Your task to perform on an android device: toggle notification dots Image 0: 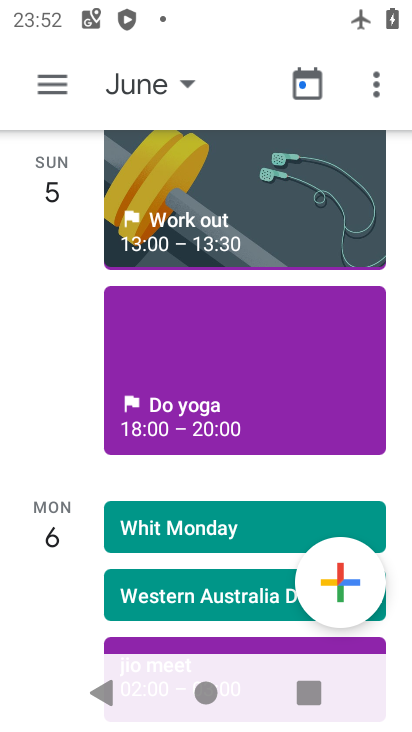
Step 0: press home button
Your task to perform on an android device: toggle notification dots Image 1: 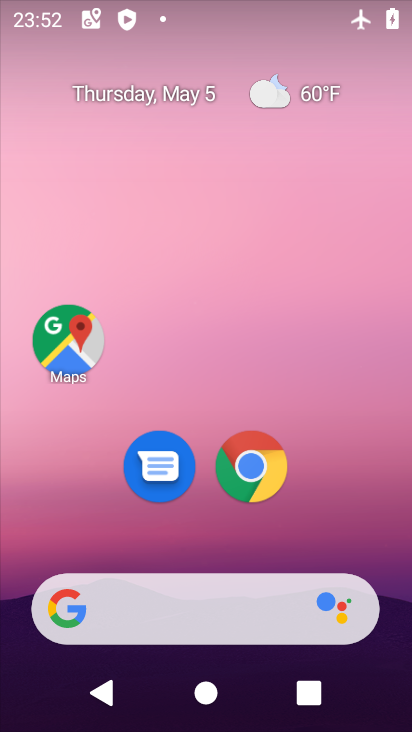
Step 1: drag from (157, 561) to (261, 197)
Your task to perform on an android device: toggle notification dots Image 2: 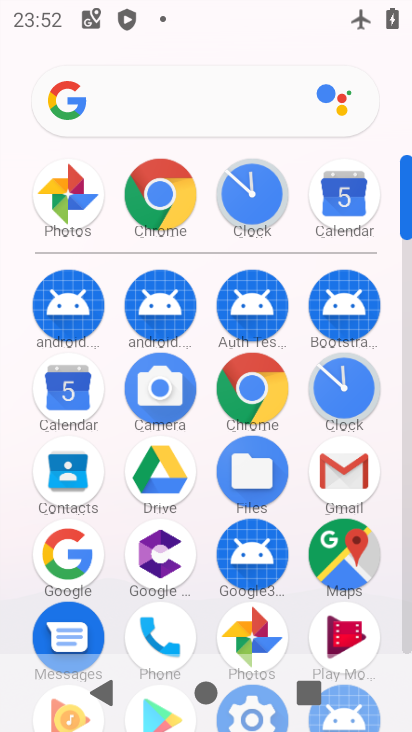
Step 2: drag from (100, 606) to (172, 287)
Your task to perform on an android device: toggle notification dots Image 3: 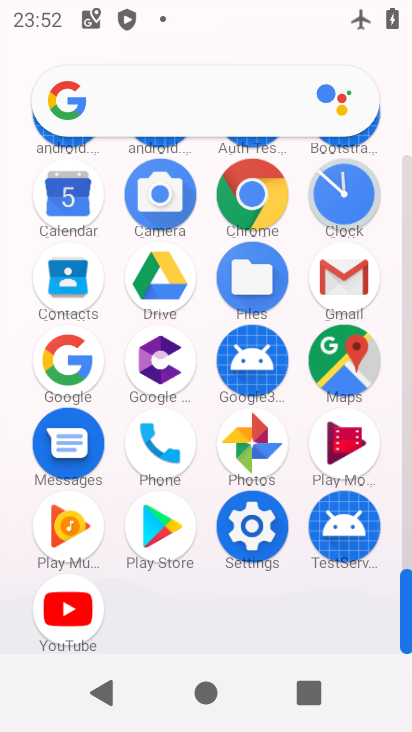
Step 3: click (247, 534)
Your task to perform on an android device: toggle notification dots Image 4: 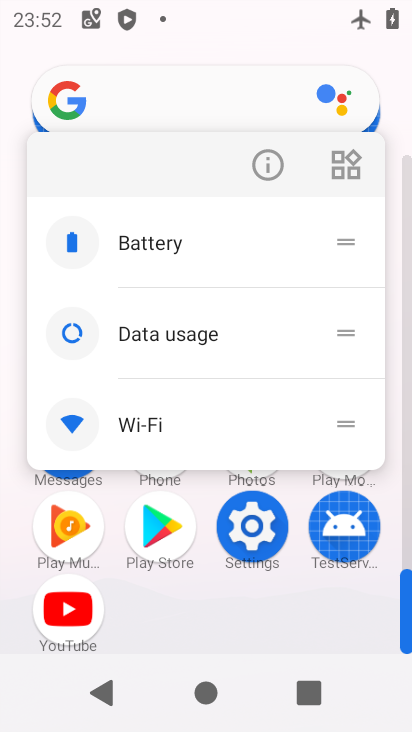
Step 4: click (247, 523)
Your task to perform on an android device: toggle notification dots Image 5: 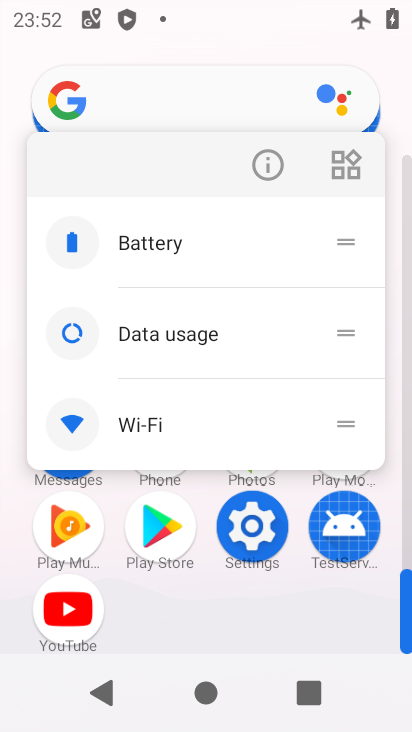
Step 5: click (253, 537)
Your task to perform on an android device: toggle notification dots Image 6: 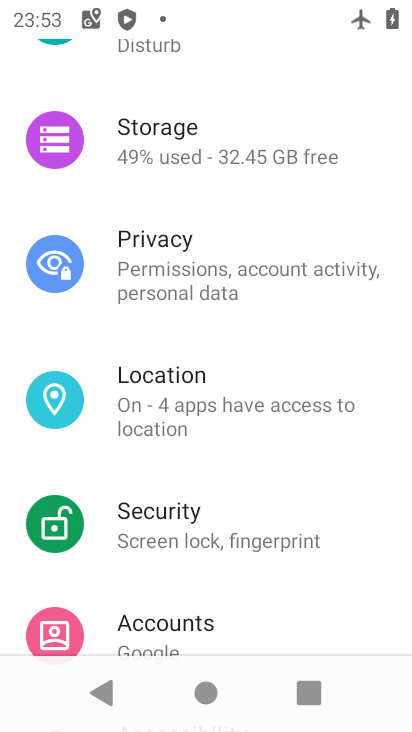
Step 6: drag from (236, 156) to (264, 651)
Your task to perform on an android device: toggle notification dots Image 7: 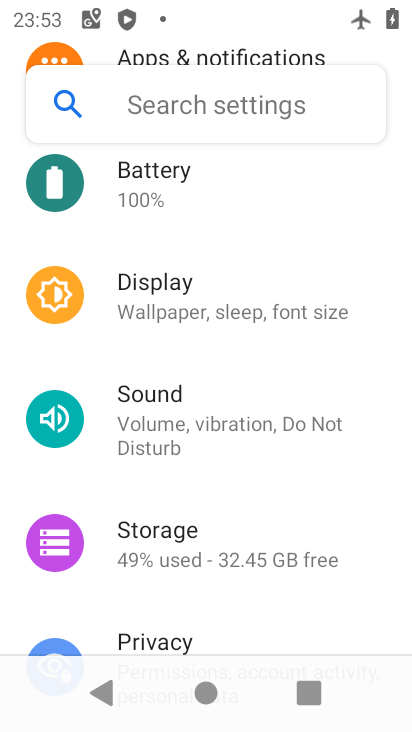
Step 7: drag from (283, 184) to (292, 602)
Your task to perform on an android device: toggle notification dots Image 8: 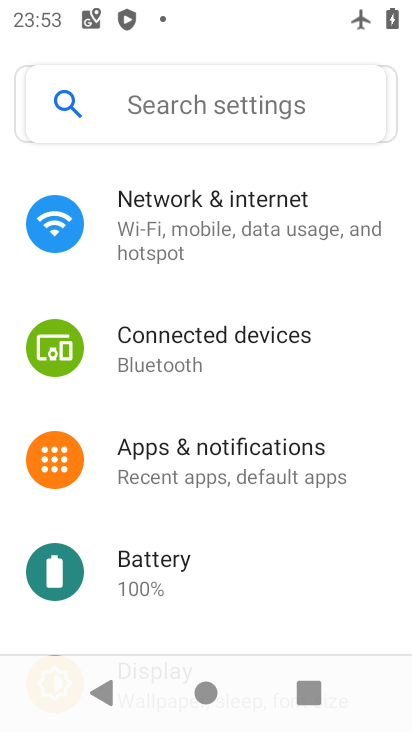
Step 8: click (188, 457)
Your task to perform on an android device: toggle notification dots Image 9: 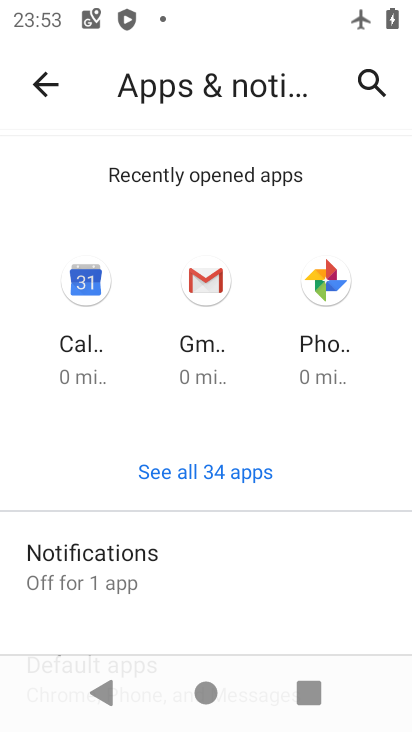
Step 9: drag from (156, 607) to (204, 328)
Your task to perform on an android device: toggle notification dots Image 10: 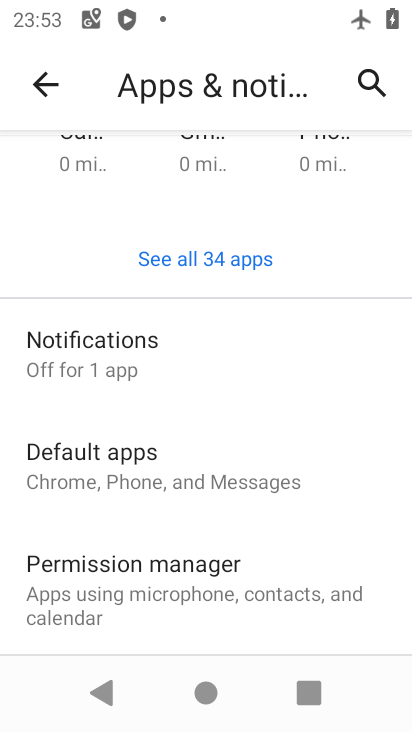
Step 10: click (98, 347)
Your task to perform on an android device: toggle notification dots Image 11: 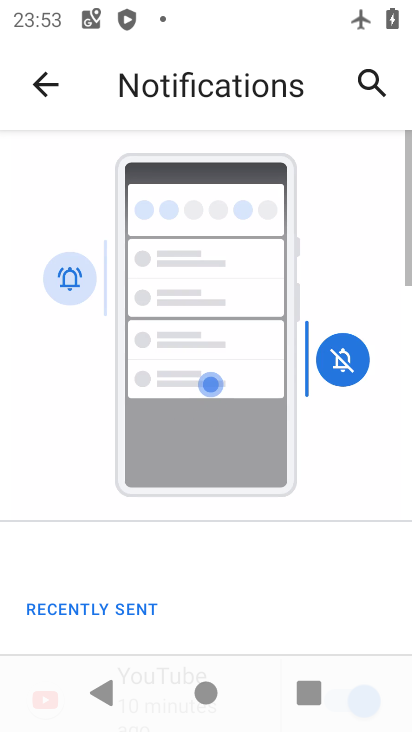
Step 11: drag from (179, 589) to (270, 289)
Your task to perform on an android device: toggle notification dots Image 12: 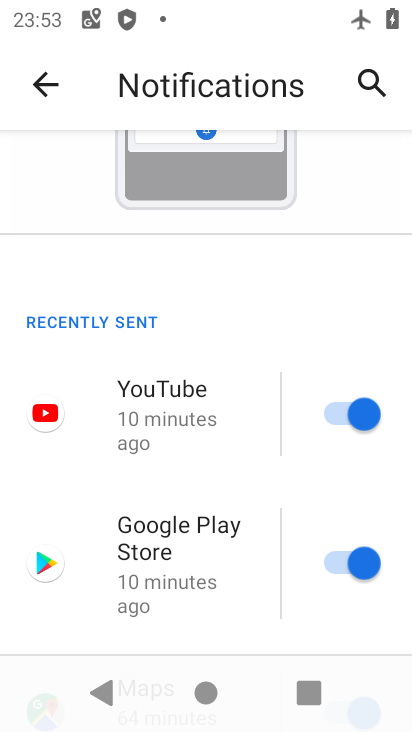
Step 12: drag from (136, 640) to (162, 356)
Your task to perform on an android device: toggle notification dots Image 13: 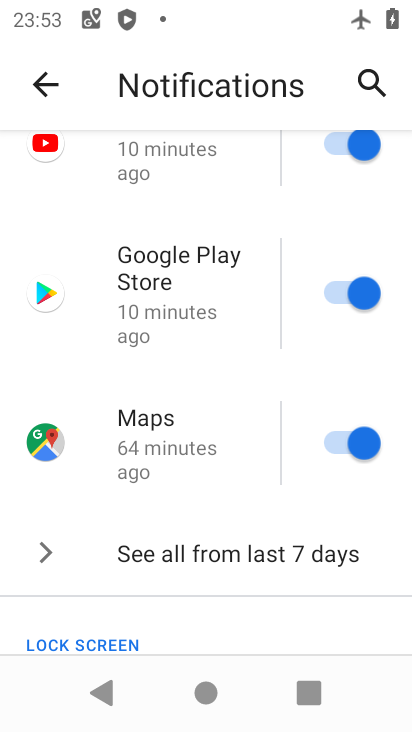
Step 13: drag from (142, 623) to (189, 311)
Your task to perform on an android device: toggle notification dots Image 14: 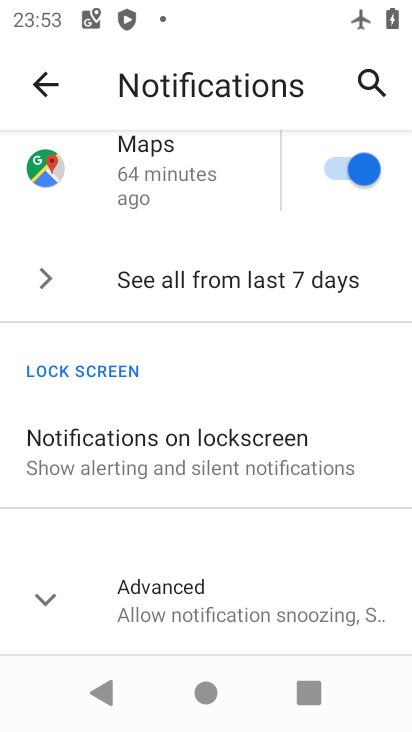
Step 14: click (181, 614)
Your task to perform on an android device: toggle notification dots Image 15: 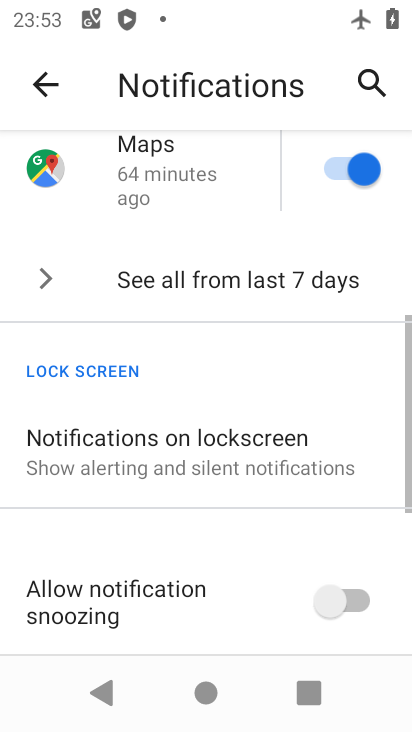
Step 15: drag from (202, 651) to (289, 339)
Your task to perform on an android device: toggle notification dots Image 16: 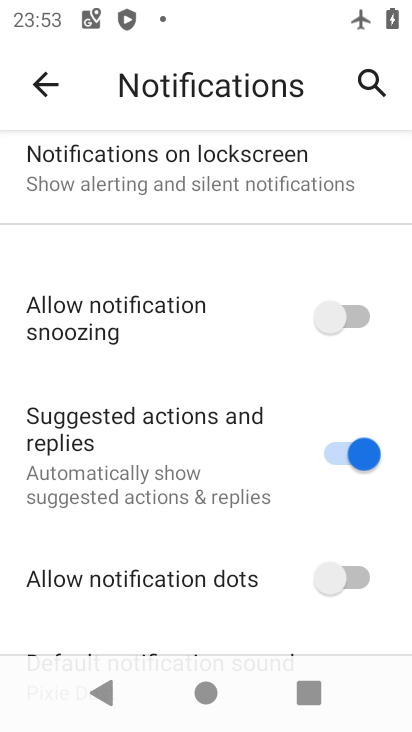
Step 16: click (362, 577)
Your task to perform on an android device: toggle notification dots Image 17: 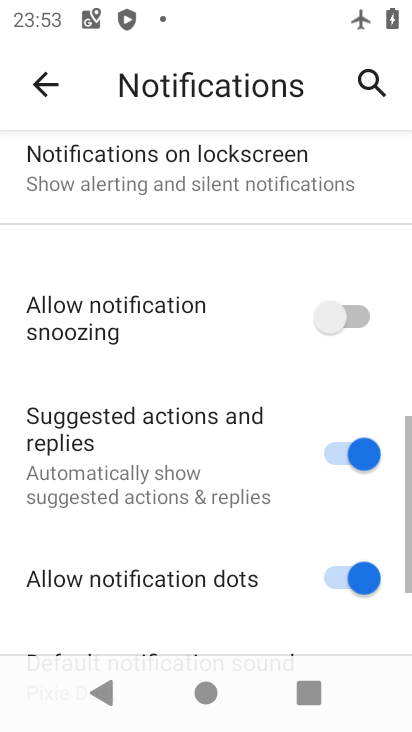
Step 17: task complete